Your task to perform on an android device: turn smart compose on in the gmail app Image 0: 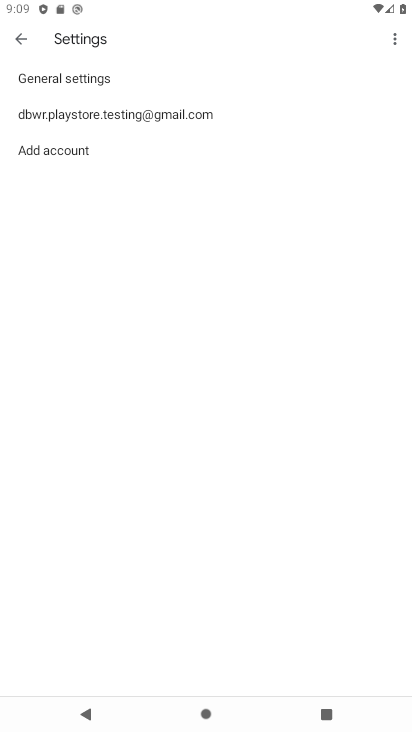
Step 0: press home button
Your task to perform on an android device: turn smart compose on in the gmail app Image 1: 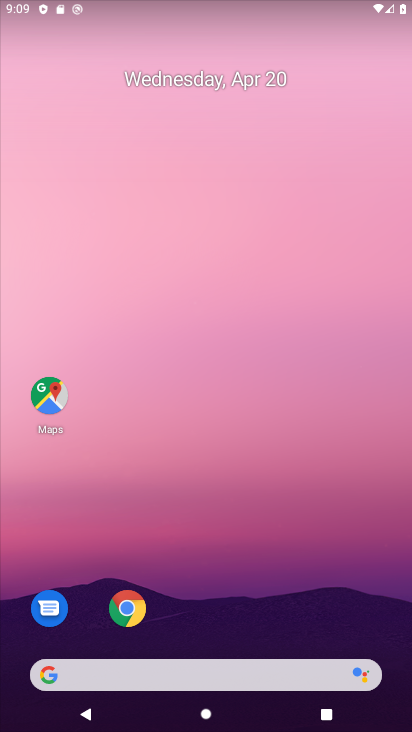
Step 1: drag from (179, 611) to (329, 19)
Your task to perform on an android device: turn smart compose on in the gmail app Image 2: 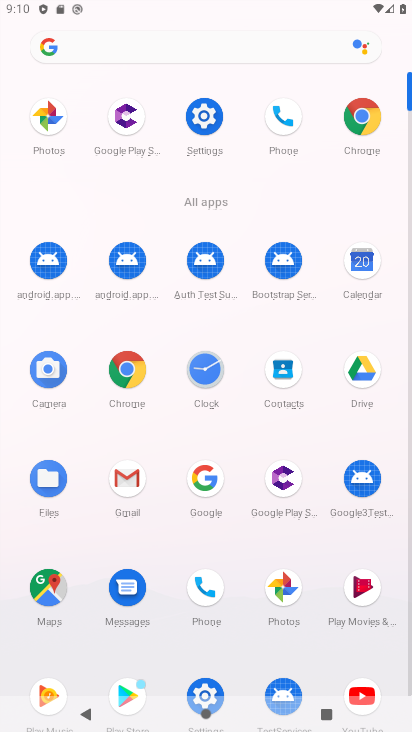
Step 2: click (126, 483)
Your task to perform on an android device: turn smart compose on in the gmail app Image 3: 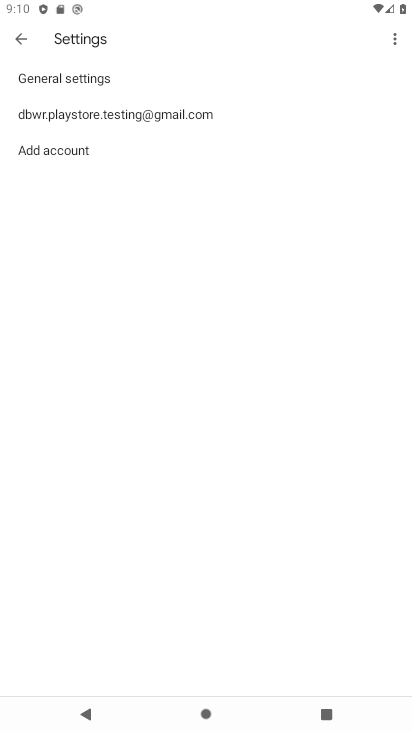
Step 3: click (108, 109)
Your task to perform on an android device: turn smart compose on in the gmail app Image 4: 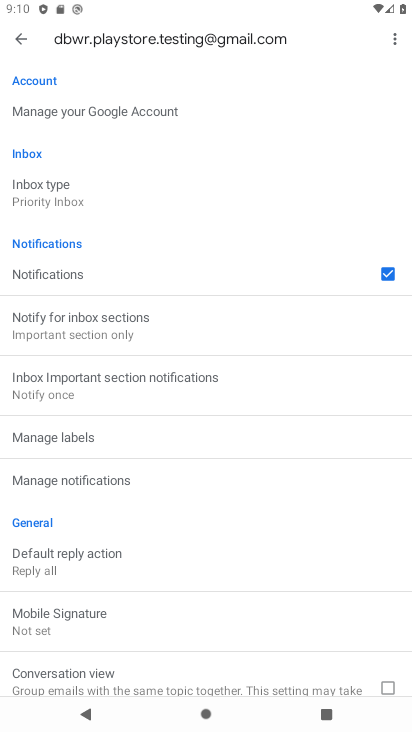
Step 4: task complete